Your task to perform on an android device: change the clock display to show seconds Image 0: 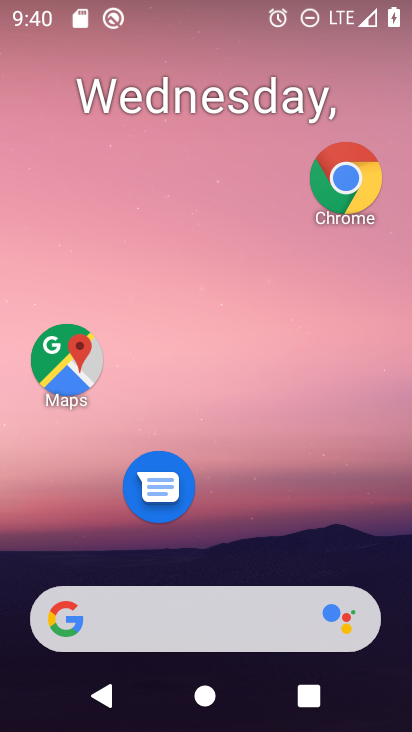
Step 0: drag from (229, 635) to (298, 165)
Your task to perform on an android device: change the clock display to show seconds Image 1: 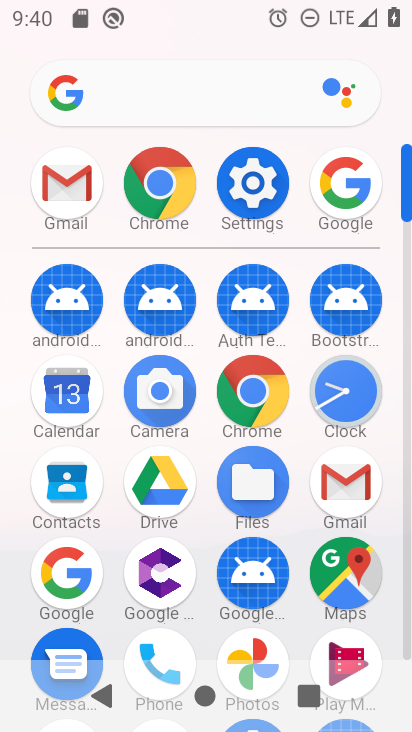
Step 1: click (357, 406)
Your task to perform on an android device: change the clock display to show seconds Image 2: 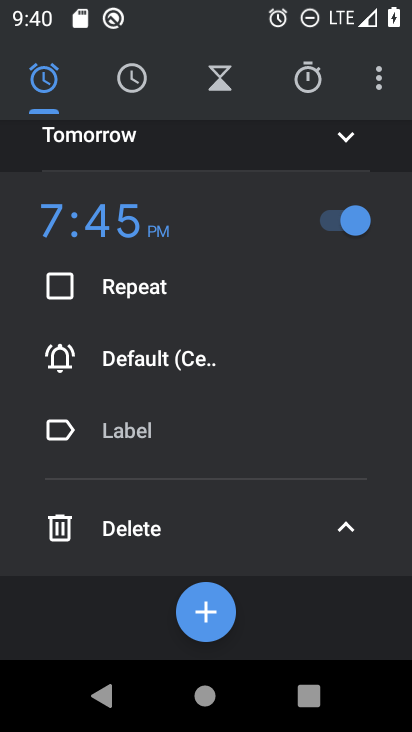
Step 2: click (382, 90)
Your task to perform on an android device: change the clock display to show seconds Image 3: 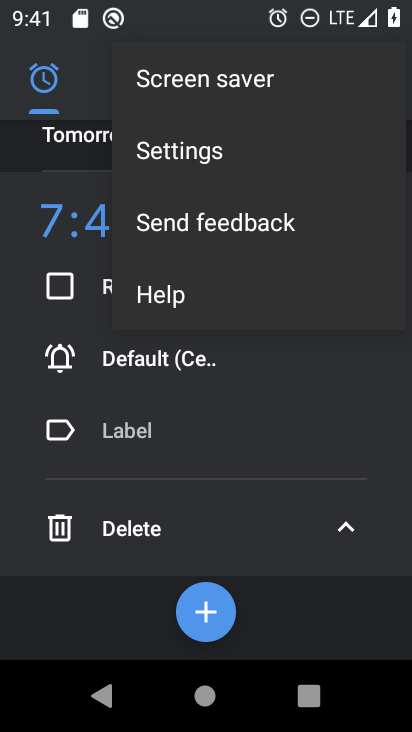
Step 3: click (206, 156)
Your task to perform on an android device: change the clock display to show seconds Image 4: 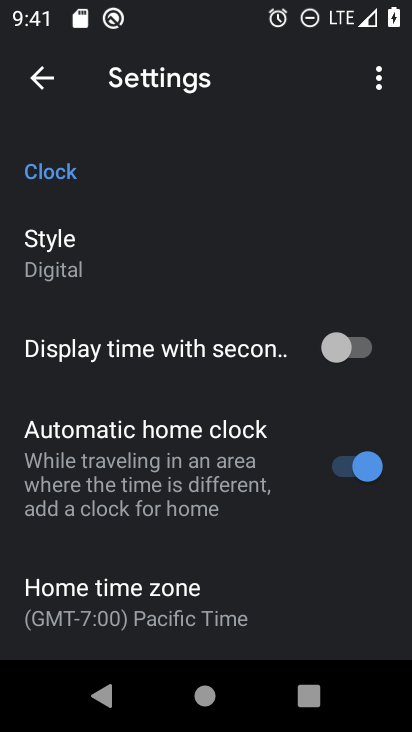
Step 4: click (224, 360)
Your task to perform on an android device: change the clock display to show seconds Image 5: 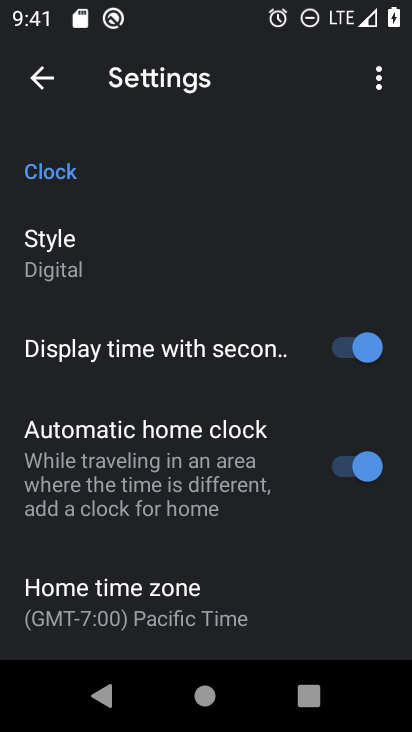
Step 5: task complete